Your task to perform on an android device: Go to accessibility settings Image 0: 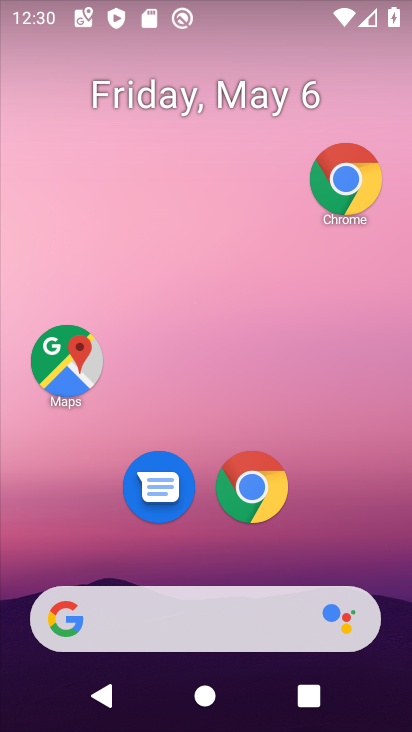
Step 0: drag from (322, 548) to (277, 208)
Your task to perform on an android device: Go to accessibility settings Image 1: 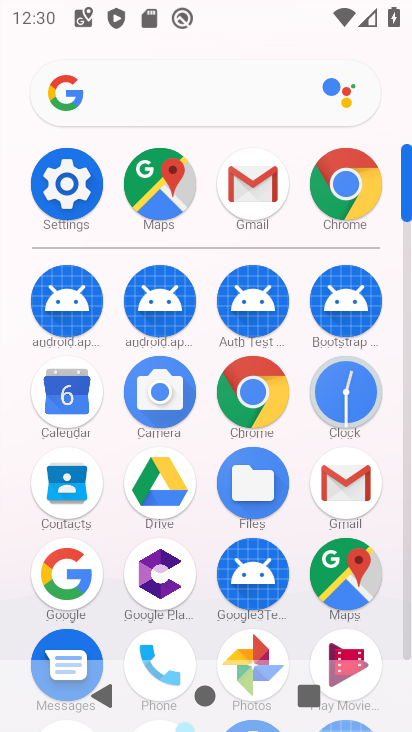
Step 1: click (58, 176)
Your task to perform on an android device: Go to accessibility settings Image 2: 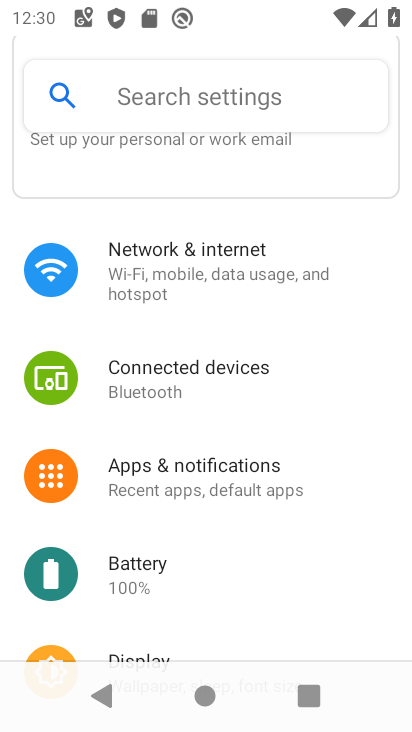
Step 2: drag from (194, 551) to (201, 434)
Your task to perform on an android device: Go to accessibility settings Image 3: 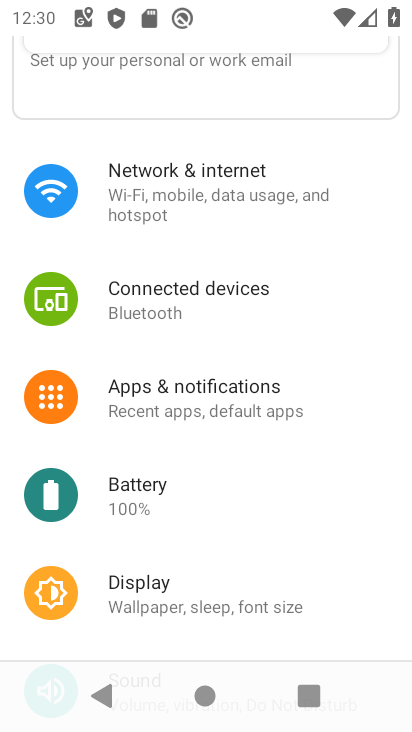
Step 3: drag from (178, 522) to (266, 203)
Your task to perform on an android device: Go to accessibility settings Image 4: 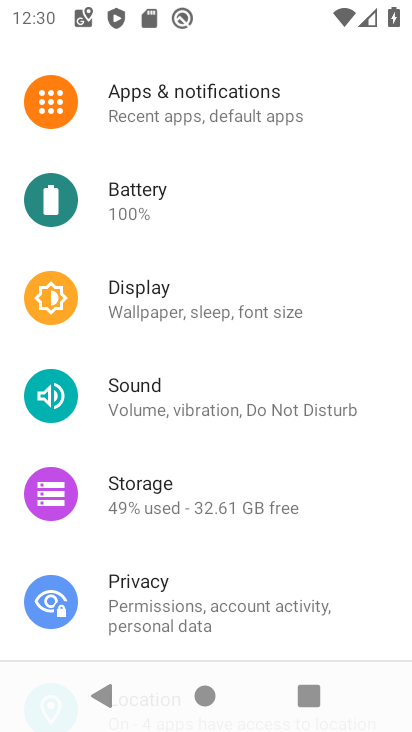
Step 4: drag from (233, 546) to (242, 403)
Your task to perform on an android device: Go to accessibility settings Image 5: 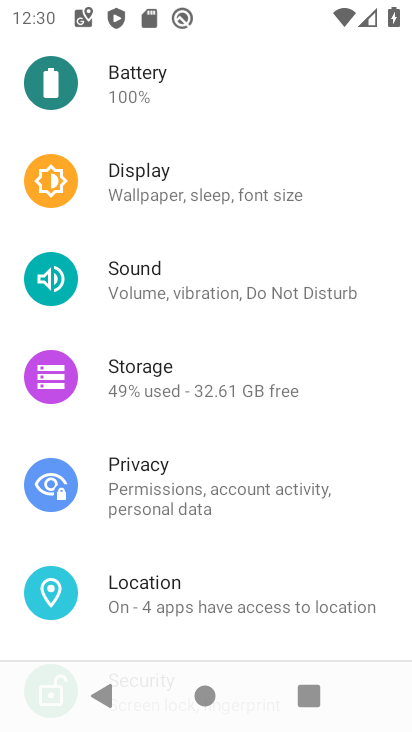
Step 5: drag from (181, 568) to (177, 398)
Your task to perform on an android device: Go to accessibility settings Image 6: 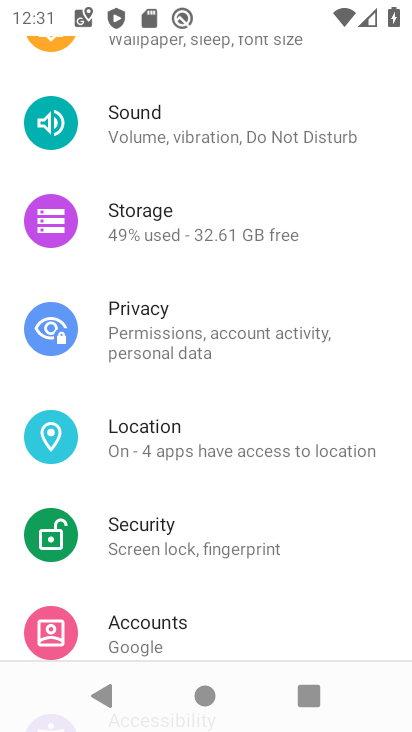
Step 6: drag from (164, 580) to (186, 500)
Your task to perform on an android device: Go to accessibility settings Image 7: 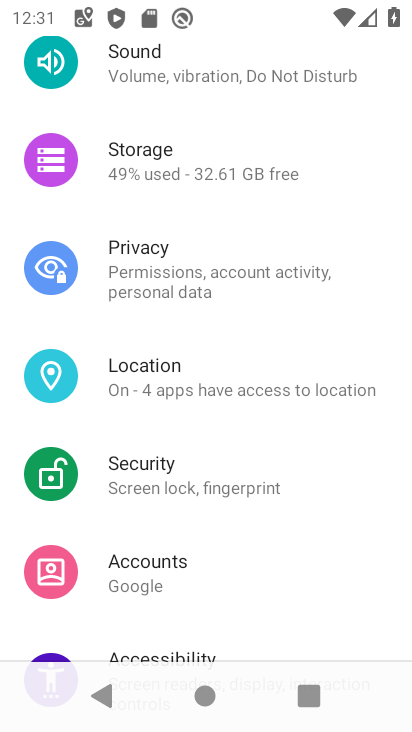
Step 7: drag from (160, 570) to (194, 363)
Your task to perform on an android device: Go to accessibility settings Image 8: 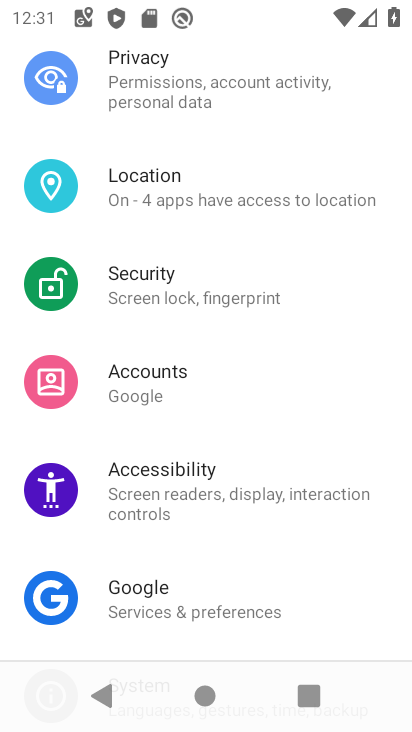
Step 8: click (188, 464)
Your task to perform on an android device: Go to accessibility settings Image 9: 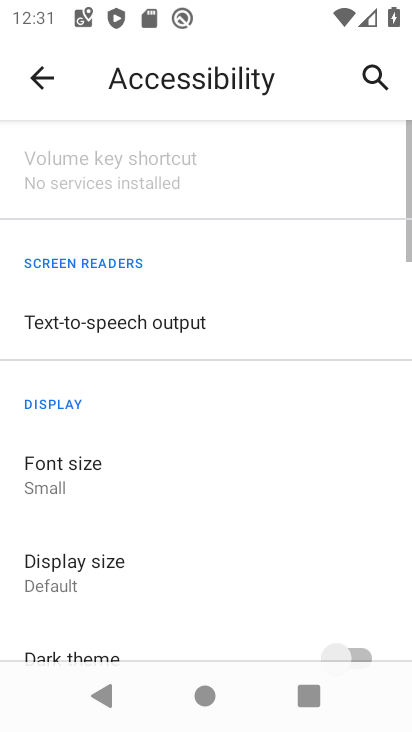
Step 9: task complete